Your task to perform on an android device: uninstall "Yahoo Mail" Image 0: 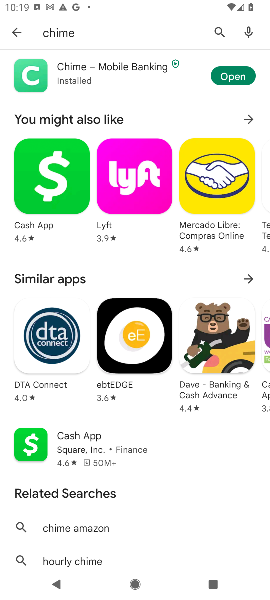
Step 0: press home button
Your task to perform on an android device: uninstall "Yahoo Mail" Image 1: 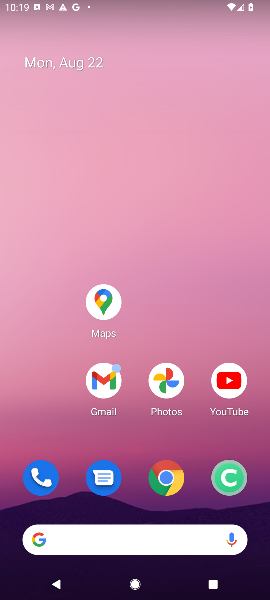
Step 1: drag from (132, 512) to (135, 175)
Your task to perform on an android device: uninstall "Yahoo Mail" Image 2: 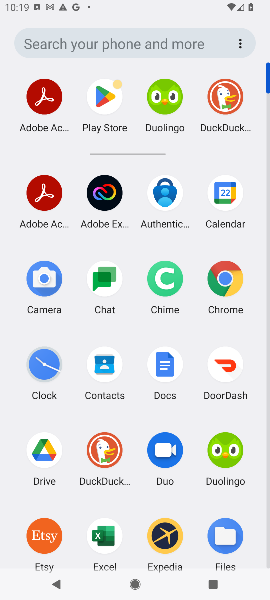
Step 2: drag from (141, 514) to (159, 157)
Your task to perform on an android device: uninstall "Yahoo Mail" Image 3: 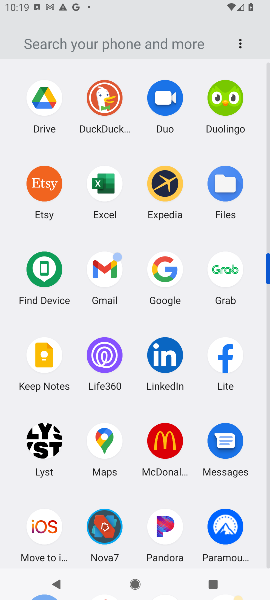
Step 3: drag from (129, 555) to (137, 180)
Your task to perform on an android device: uninstall "Yahoo Mail" Image 4: 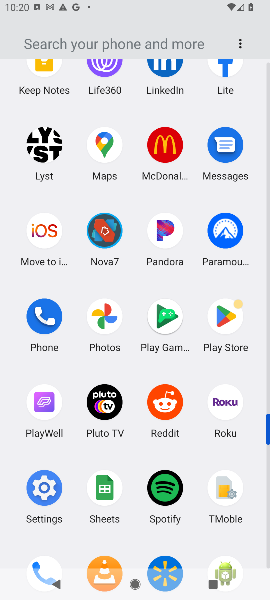
Step 4: drag from (131, 539) to (138, 167)
Your task to perform on an android device: uninstall "Yahoo Mail" Image 5: 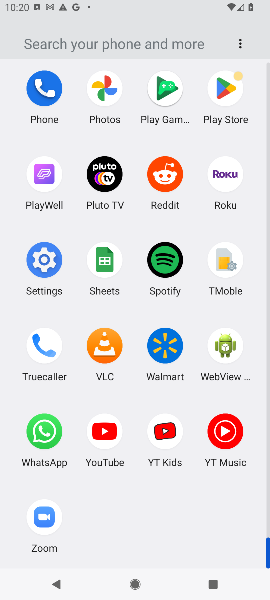
Step 5: click (237, 95)
Your task to perform on an android device: uninstall "Yahoo Mail" Image 6: 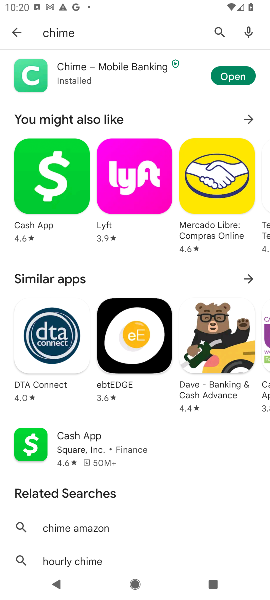
Step 6: click (212, 25)
Your task to perform on an android device: uninstall "Yahoo Mail" Image 7: 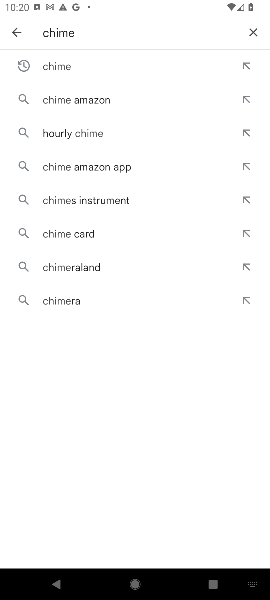
Step 7: click (247, 34)
Your task to perform on an android device: uninstall "Yahoo Mail" Image 8: 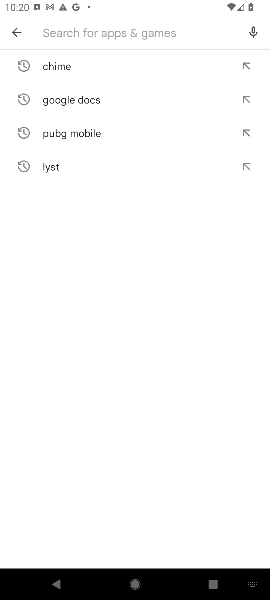
Step 8: type "yahoo"
Your task to perform on an android device: uninstall "Yahoo Mail" Image 9: 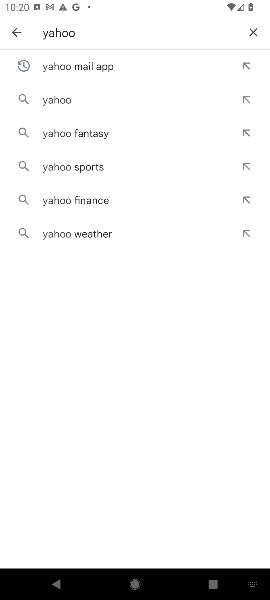
Step 9: click (80, 72)
Your task to perform on an android device: uninstall "Yahoo Mail" Image 10: 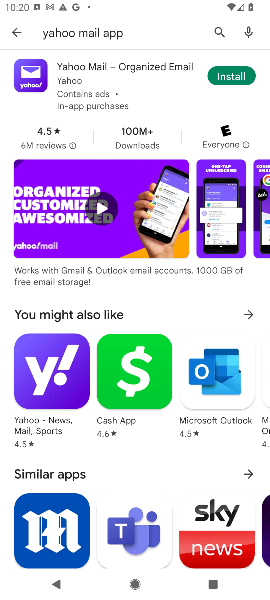
Step 10: click (220, 76)
Your task to perform on an android device: uninstall "Yahoo Mail" Image 11: 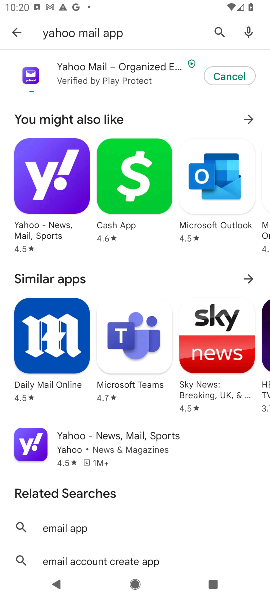
Step 11: task complete